Your task to perform on an android device: Open Chrome and go to the settings page Image 0: 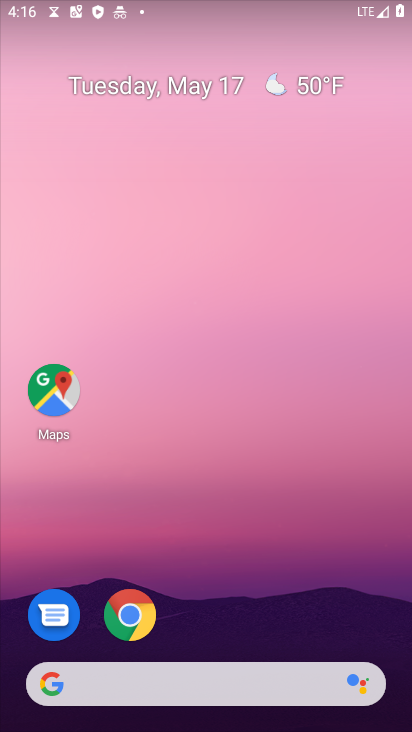
Step 0: drag from (256, 581) to (193, 162)
Your task to perform on an android device: Open Chrome and go to the settings page Image 1: 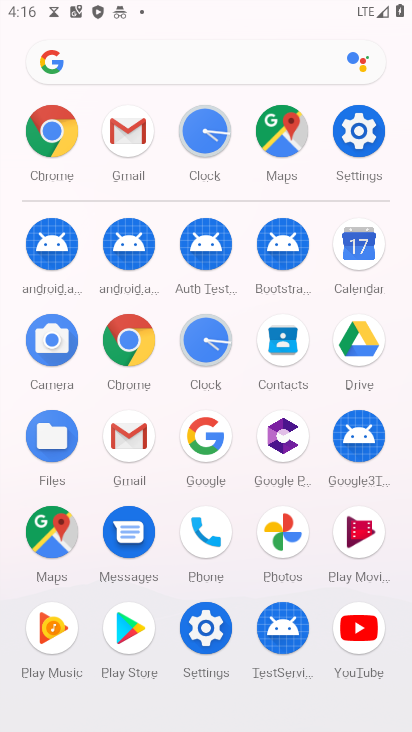
Step 1: click (349, 138)
Your task to perform on an android device: Open Chrome and go to the settings page Image 2: 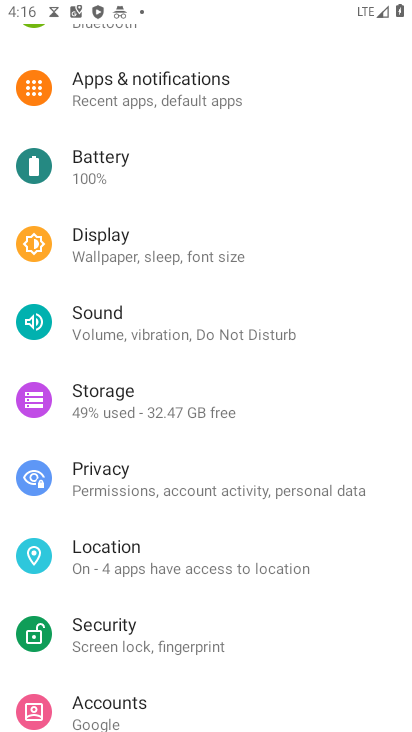
Step 2: press back button
Your task to perform on an android device: Open Chrome and go to the settings page Image 3: 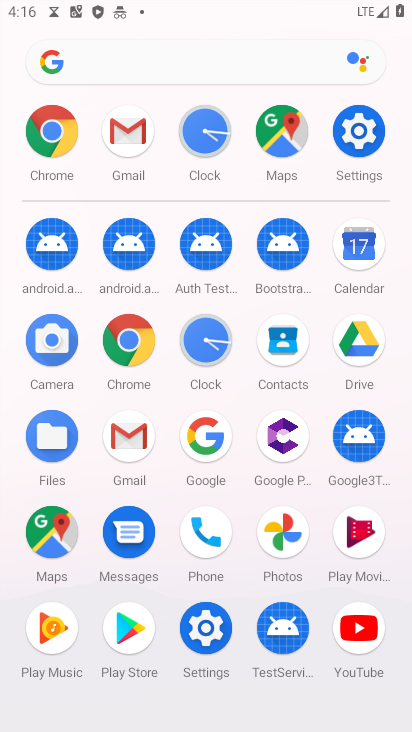
Step 3: click (36, 141)
Your task to perform on an android device: Open Chrome and go to the settings page Image 4: 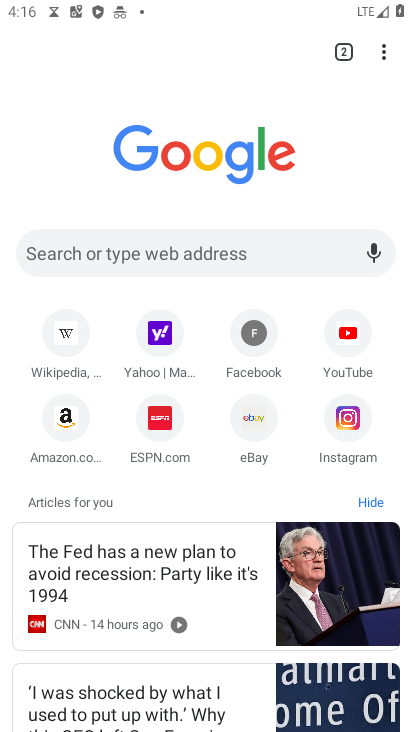
Step 4: drag from (381, 55) to (198, 431)
Your task to perform on an android device: Open Chrome and go to the settings page Image 5: 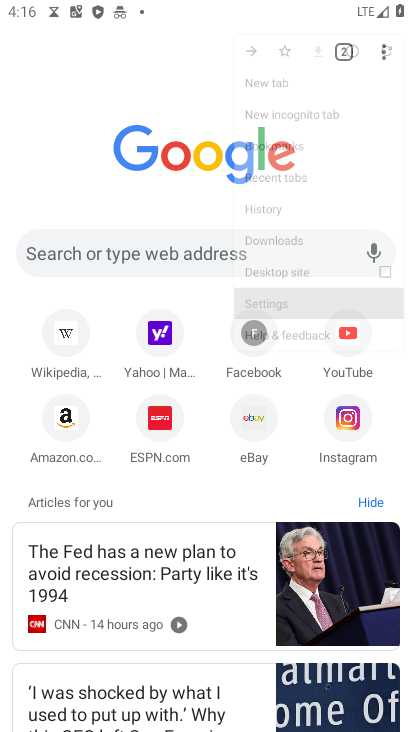
Step 5: click (198, 431)
Your task to perform on an android device: Open Chrome and go to the settings page Image 6: 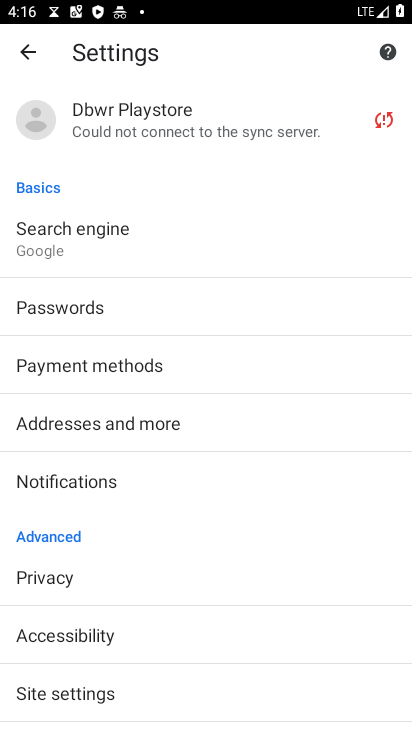
Step 6: task complete